Your task to perform on an android device: set the timer Image 0: 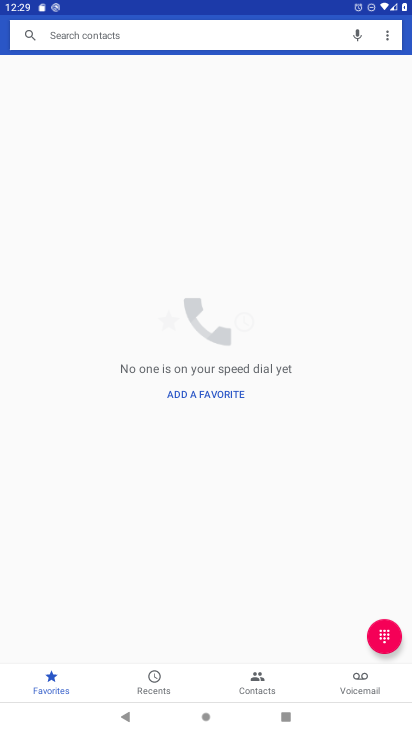
Step 0: press home button
Your task to perform on an android device: set the timer Image 1: 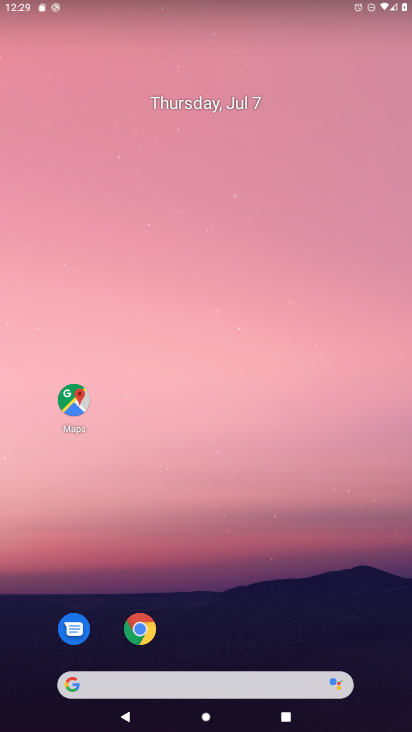
Step 1: drag from (235, 639) to (235, 193)
Your task to perform on an android device: set the timer Image 2: 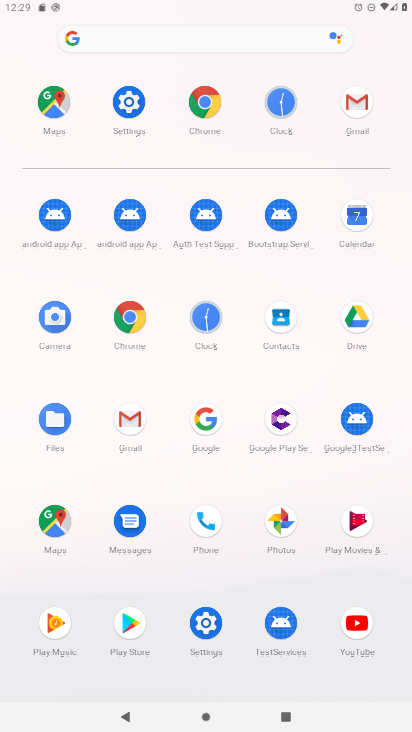
Step 2: click (287, 108)
Your task to perform on an android device: set the timer Image 3: 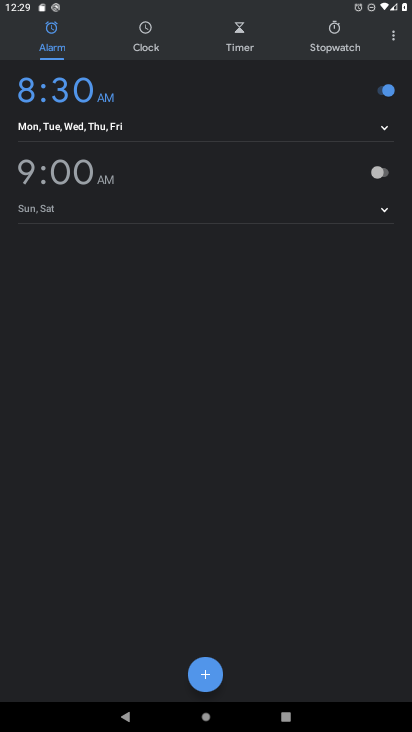
Step 3: click (246, 35)
Your task to perform on an android device: set the timer Image 4: 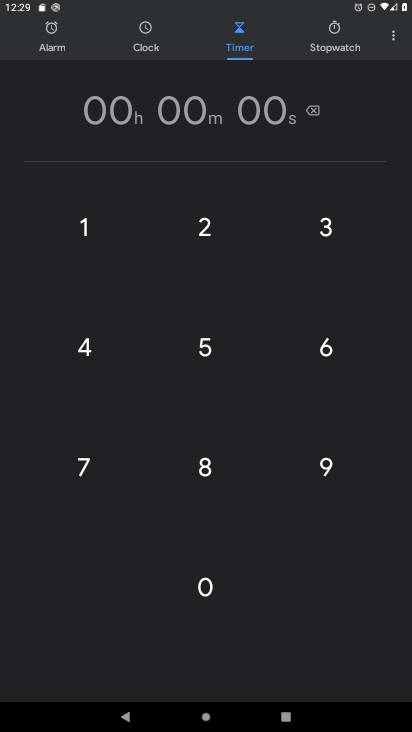
Step 4: click (244, 109)
Your task to perform on an android device: set the timer Image 5: 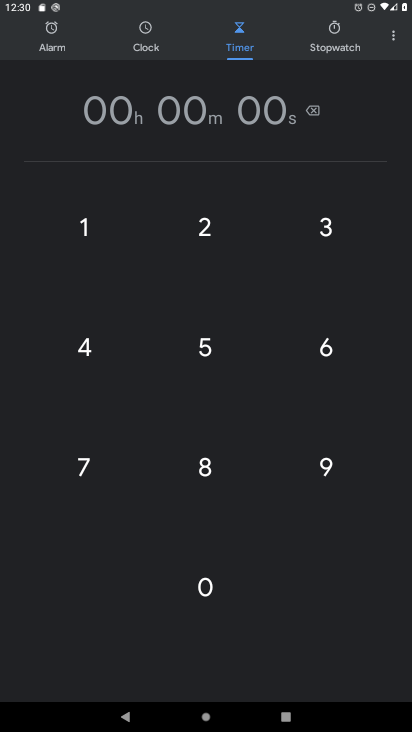
Step 5: type "20"
Your task to perform on an android device: set the timer Image 6: 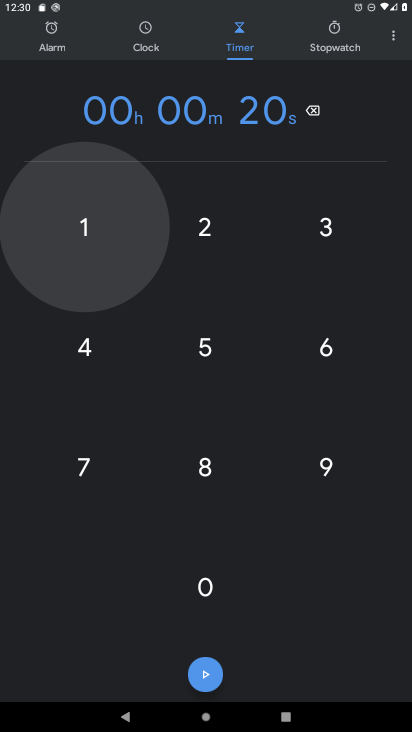
Step 6: click (204, 673)
Your task to perform on an android device: set the timer Image 7: 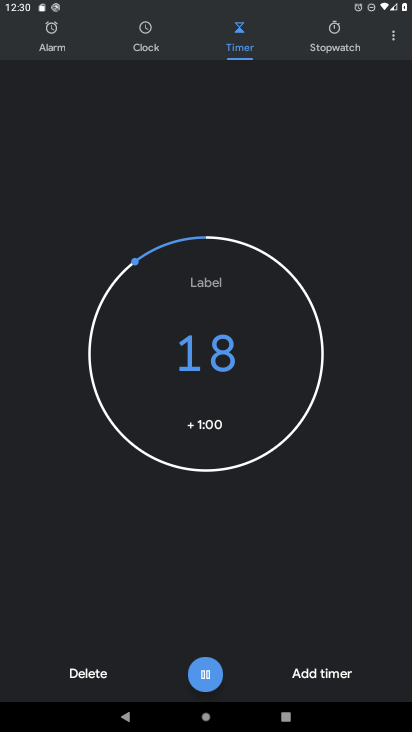
Step 7: task complete